Your task to perform on an android device: turn off airplane mode Image 0: 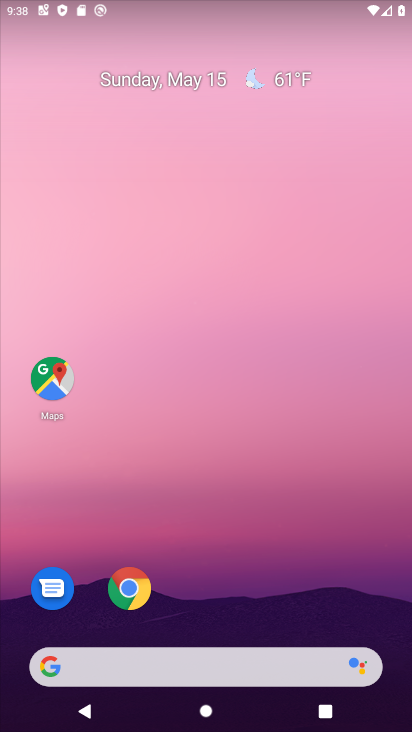
Step 0: drag from (189, 550) to (245, 53)
Your task to perform on an android device: turn off airplane mode Image 1: 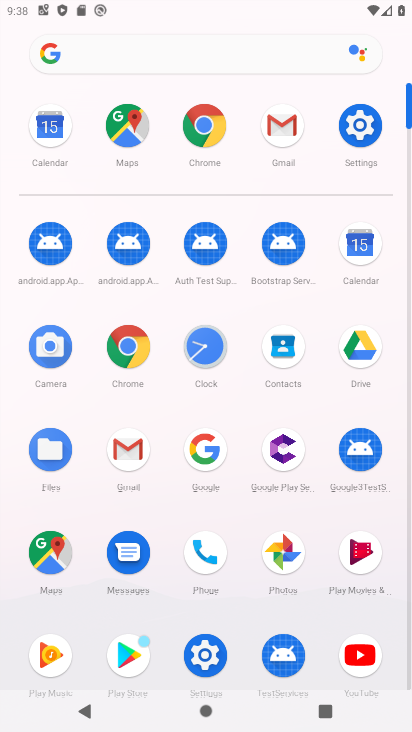
Step 1: click (360, 137)
Your task to perform on an android device: turn off airplane mode Image 2: 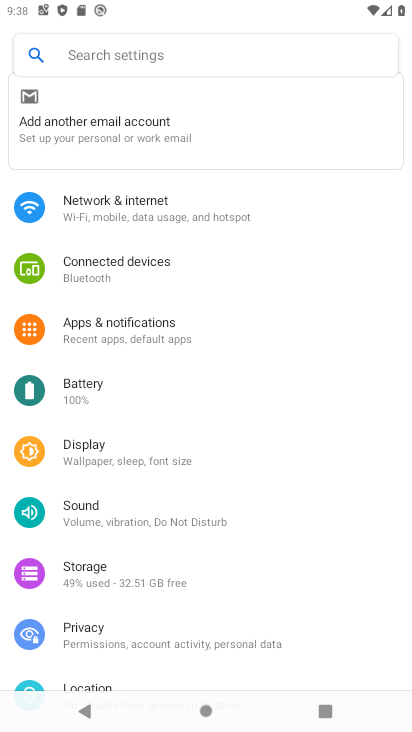
Step 2: click (131, 211)
Your task to perform on an android device: turn off airplane mode Image 3: 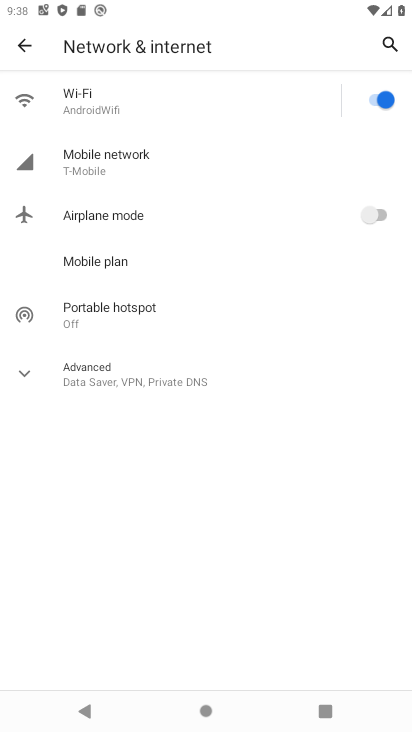
Step 3: task complete